Your task to perform on an android device: Clear all items from cart on ebay. Search for "apple airpods" on ebay, select the first entry, add it to the cart, then select checkout. Image 0: 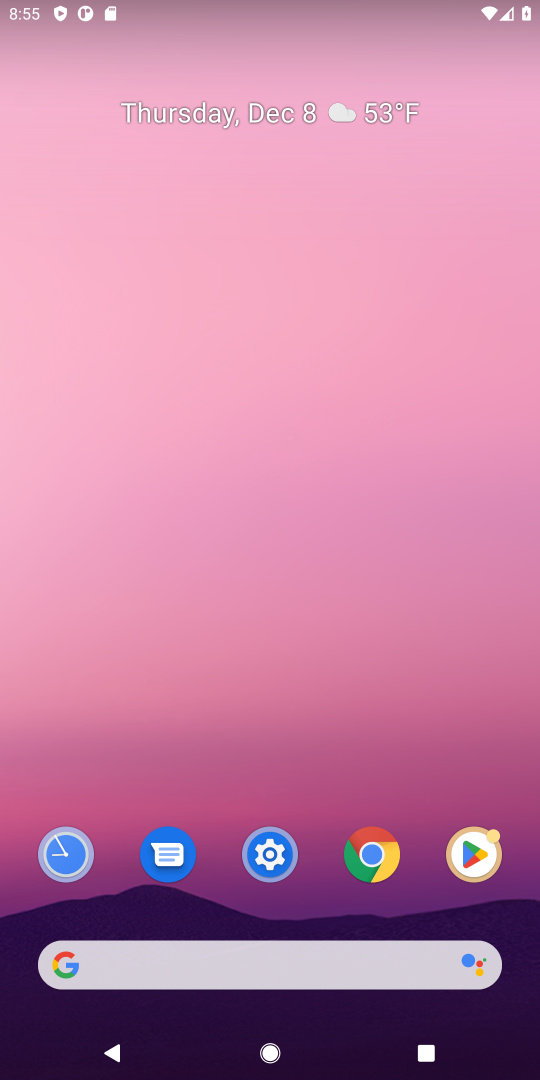
Step 0: press home button
Your task to perform on an android device: Clear all items from cart on ebay. Search for "apple airpods" on ebay, select the first entry, add it to the cart, then select checkout. Image 1: 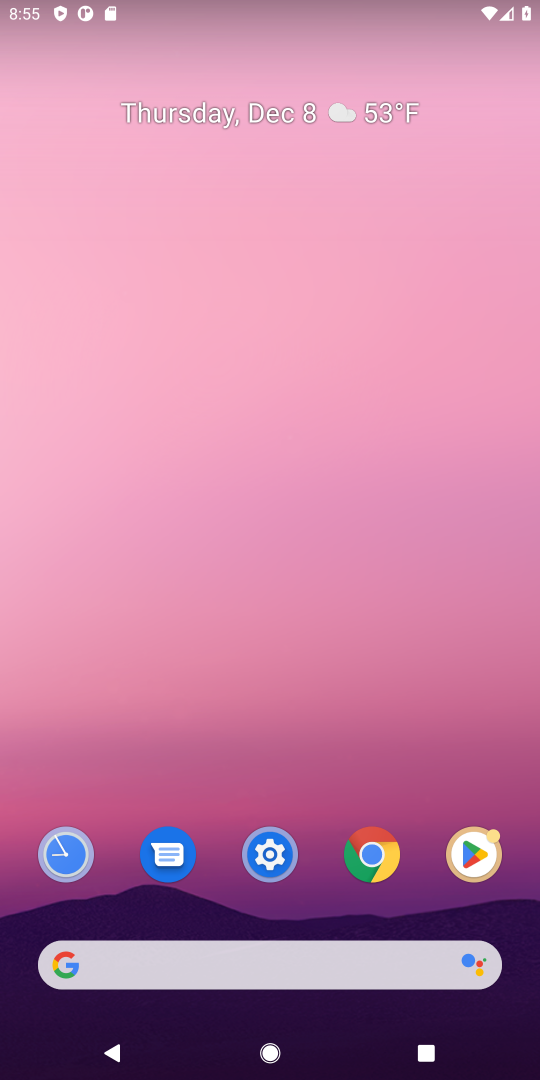
Step 1: click (90, 963)
Your task to perform on an android device: Clear all items from cart on ebay. Search for "apple airpods" on ebay, select the first entry, add it to the cart, then select checkout. Image 2: 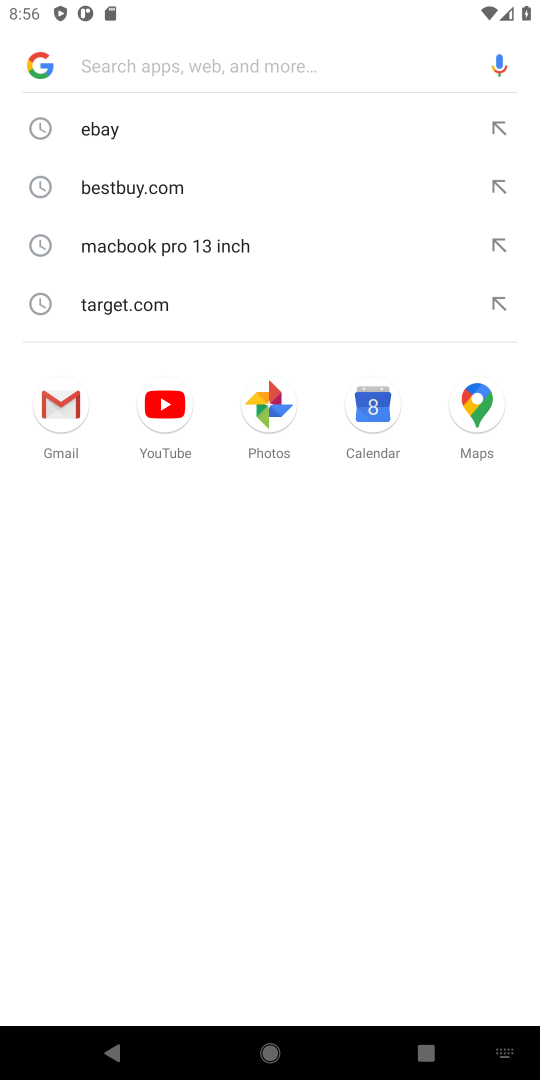
Step 2: type "ebay"
Your task to perform on an android device: Clear all items from cart on ebay. Search for "apple airpods" on ebay, select the first entry, add it to the cart, then select checkout. Image 3: 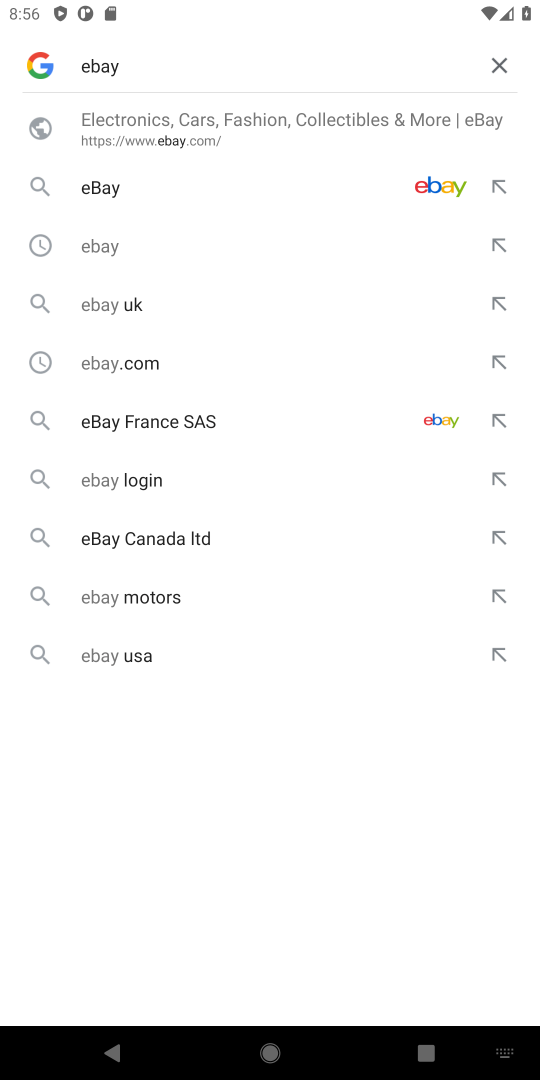
Step 3: press enter
Your task to perform on an android device: Clear all items from cart on ebay. Search for "apple airpods" on ebay, select the first entry, add it to the cart, then select checkout. Image 4: 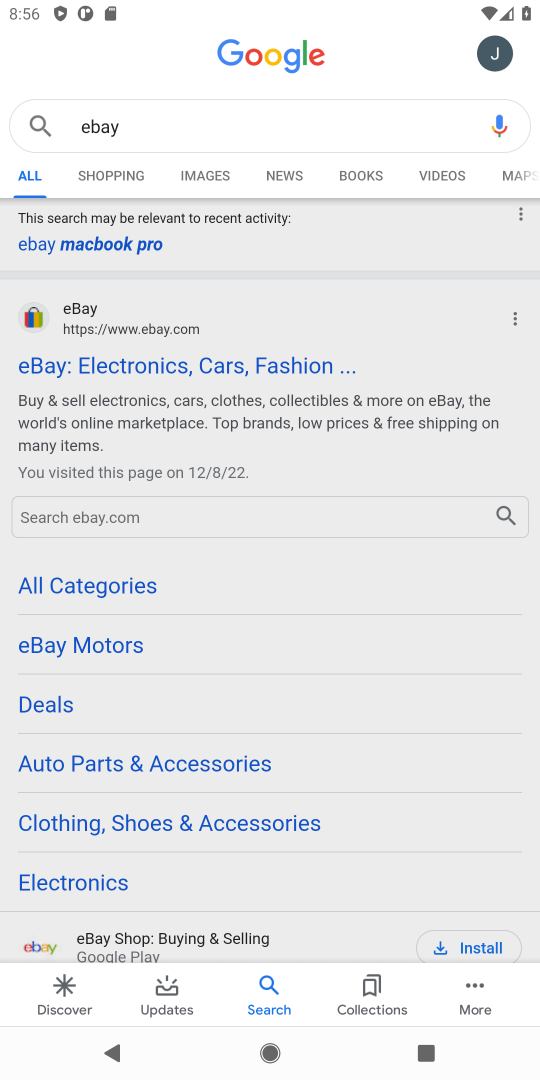
Step 4: click (127, 369)
Your task to perform on an android device: Clear all items from cart on ebay. Search for "apple airpods" on ebay, select the first entry, add it to the cart, then select checkout. Image 5: 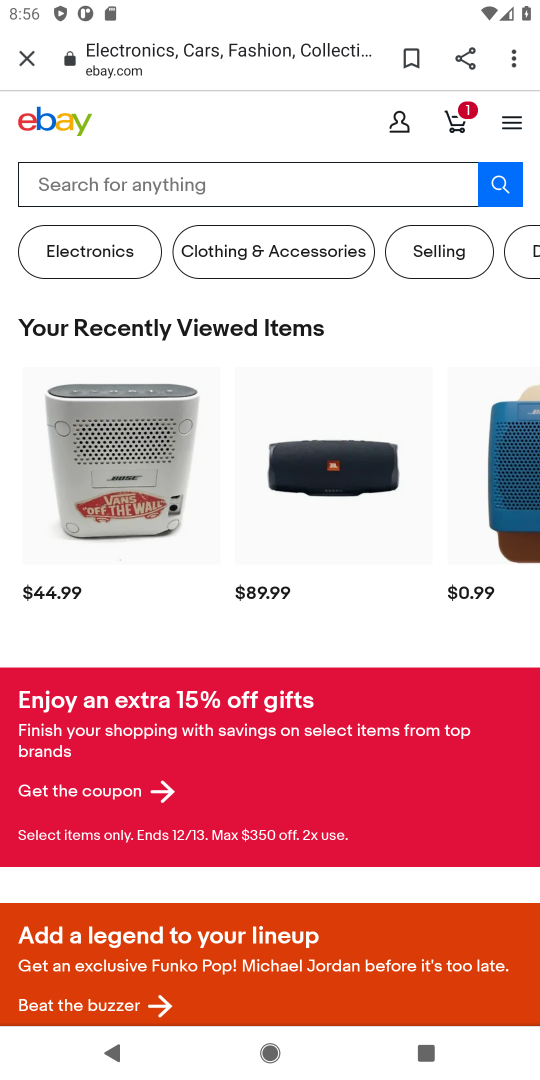
Step 5: click (454, 121)
Your task to perform on an android device: Clear all items from cart on ebay. Search for "apple airpods" on ebay, select the first entry, add it to the cart, then select checkout. Image 6: 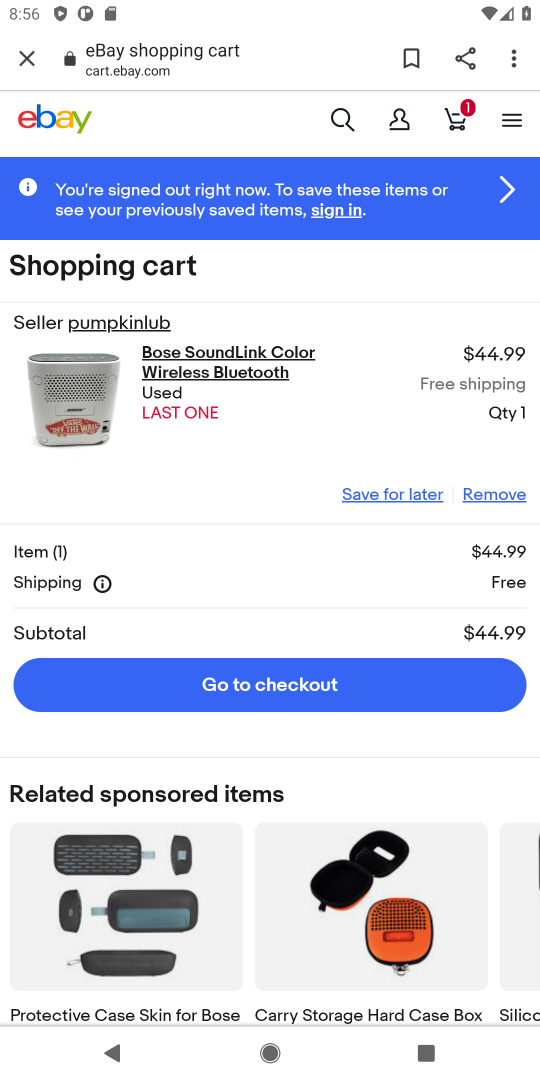
Step 6: click (488, 492)
Your task to perform on an android device: Clear all items from cart on ebay. Search for "apple airpods" on ebay, select the first entry, add it to the cart, then select checkout. Image 7: 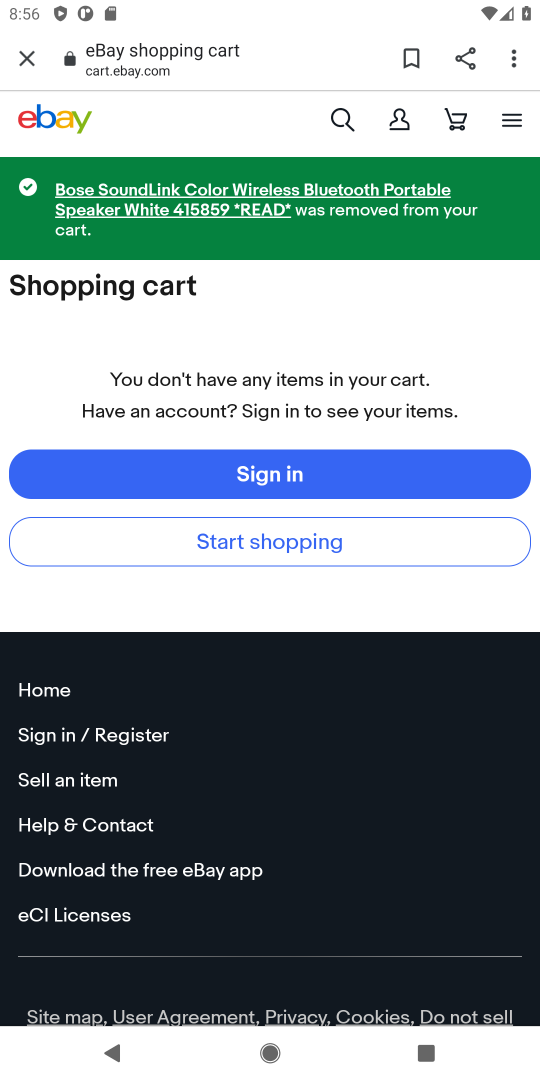
Step 7: click (336, 113)
Your task to perform on an android device: Clear all items from cart on ebay. Search for "apple airpods" on ebay, select the first entry, add it to the cart, then select checkout. Image 8: 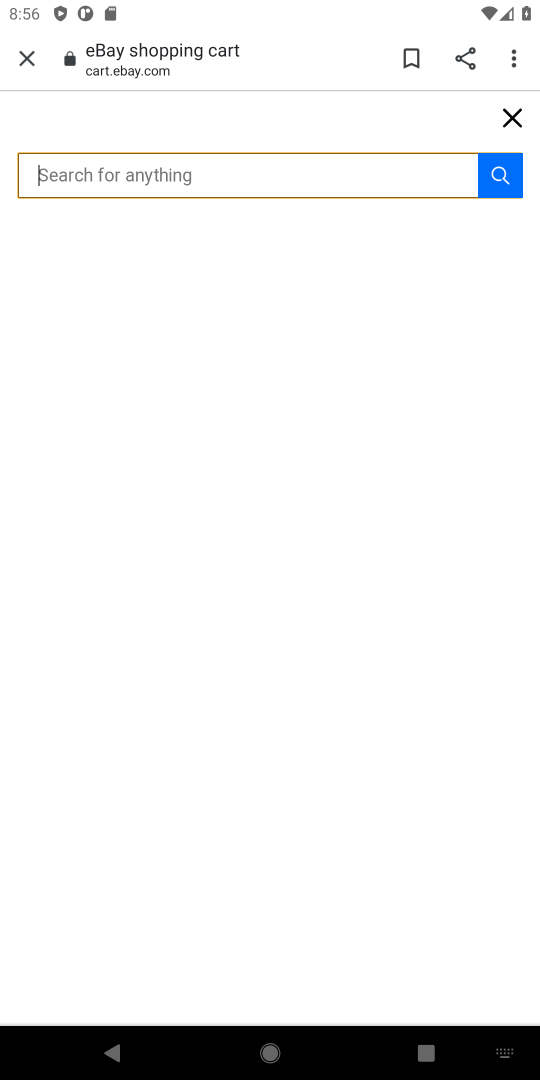
Step 8: type "apple airpods"
Your task to perform on an android device: Clear all items from cart on ebay. Search for "apple airpods" on ebay, select the first entry, add it to the cart, then select checkout. Image 9: 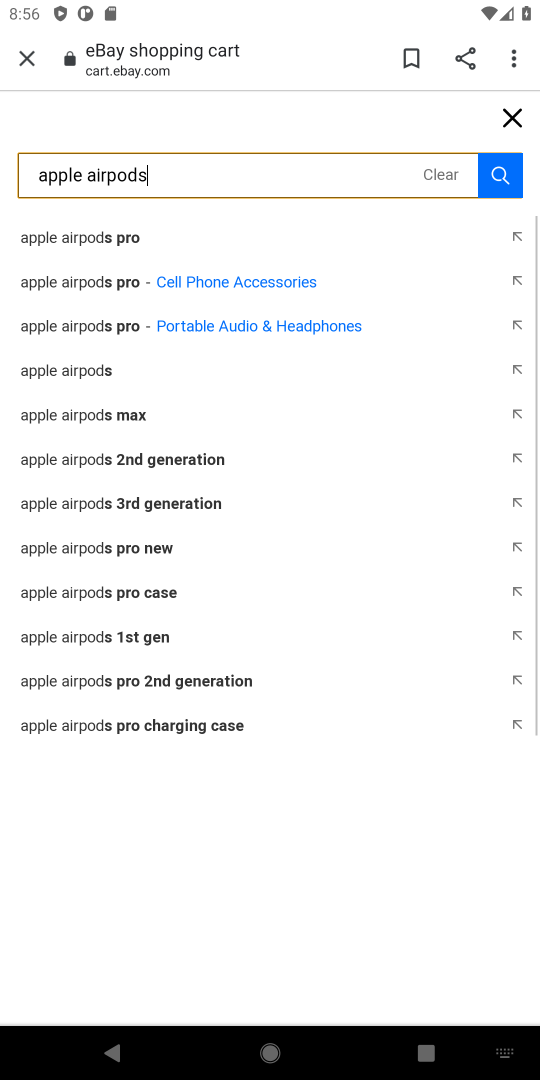
Step 9: press enter
Your task to perform on an android device: Clear all items from cart on ebay. Search for "apple airpods" on ebay, select the first entry, add it to the cart, then select checkout. Image 10: 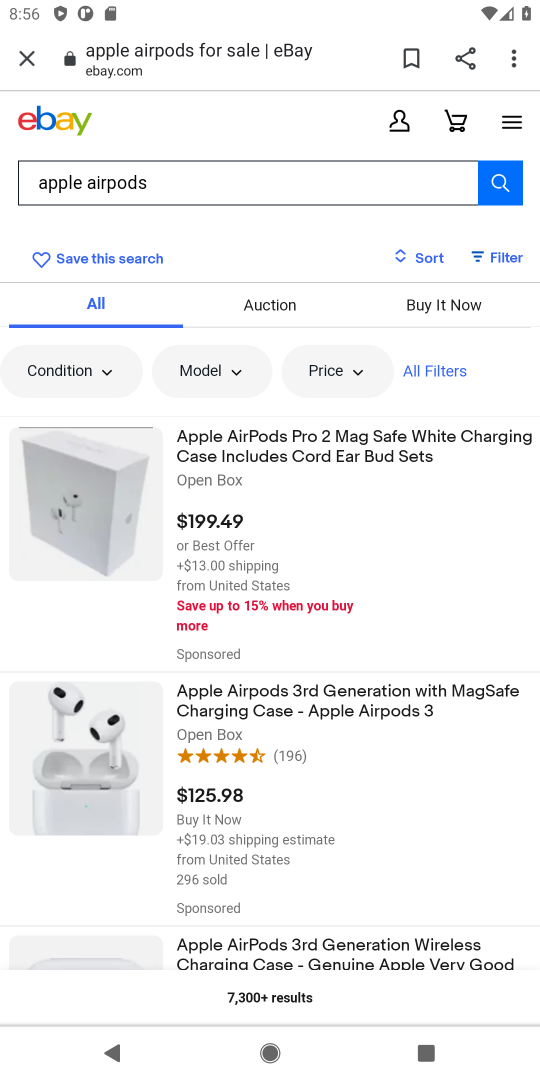
Step 10: click (264, 451)
Your task to perform on an android device: Clear all items from cart on ebay. Search for "apple airpods" on ebay, select the first entry, add it to the cart, then select checkout. Image 11: 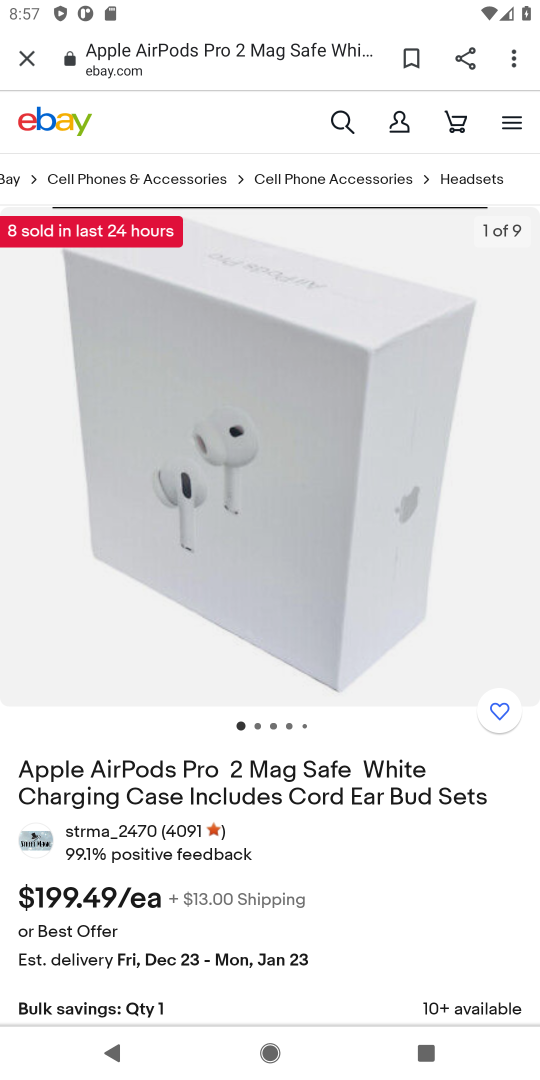
Step 11: drag from (314, 897) to (340, 437)
Your task to perform on an android device: Clear all items from cart on ebay. Search for "apple airpods" on ebay, select the first entry, add it to the cart, then select checkout. Image 12: 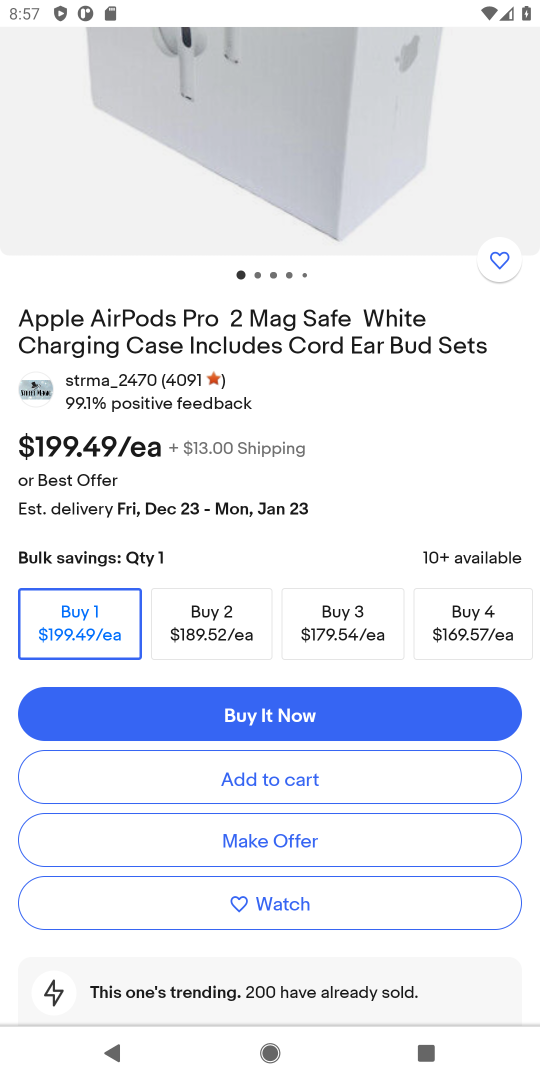
Step 12: click (252, 782)
Your task to perform on an android device: Clear all items from cart on ebay. Search for "apple airpods" on ebay, select the first entry, add it to the cart, then select checkout. Image 13: 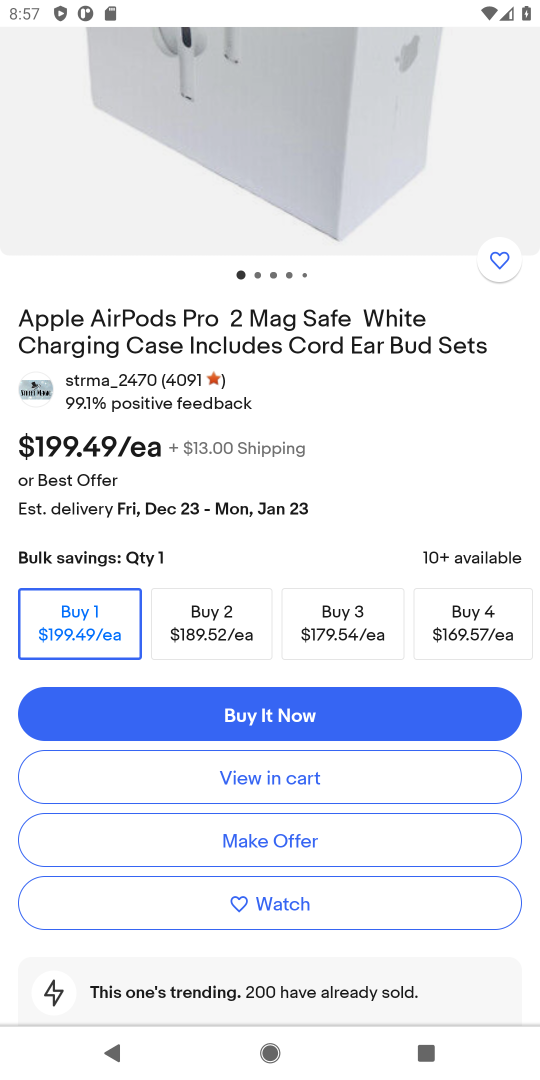
Step 13: click (275, 785)
Your task to perform on an android device: Clear all items from cart on ebay. Search for "apple airpods" on ebay, select the first entry, add it to the cart, then select checkout. Image 14: 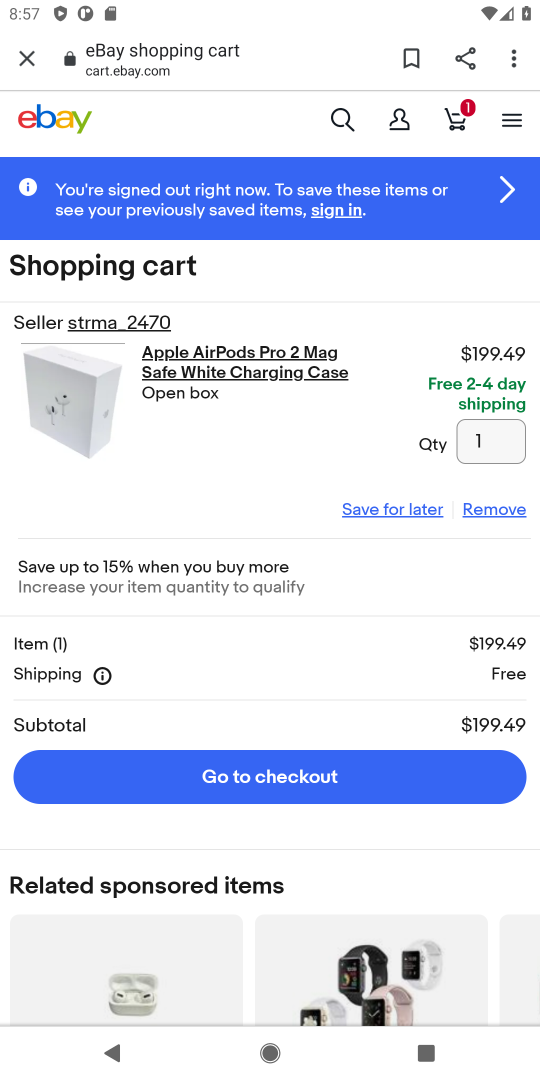
Step 14: click (226, 779)
Your task to perform on an android device: Clear all items from cart on ebay. Search for "apple airpods" on ebay, select the first entry, add it to the cart, then select checkout. Image 15: 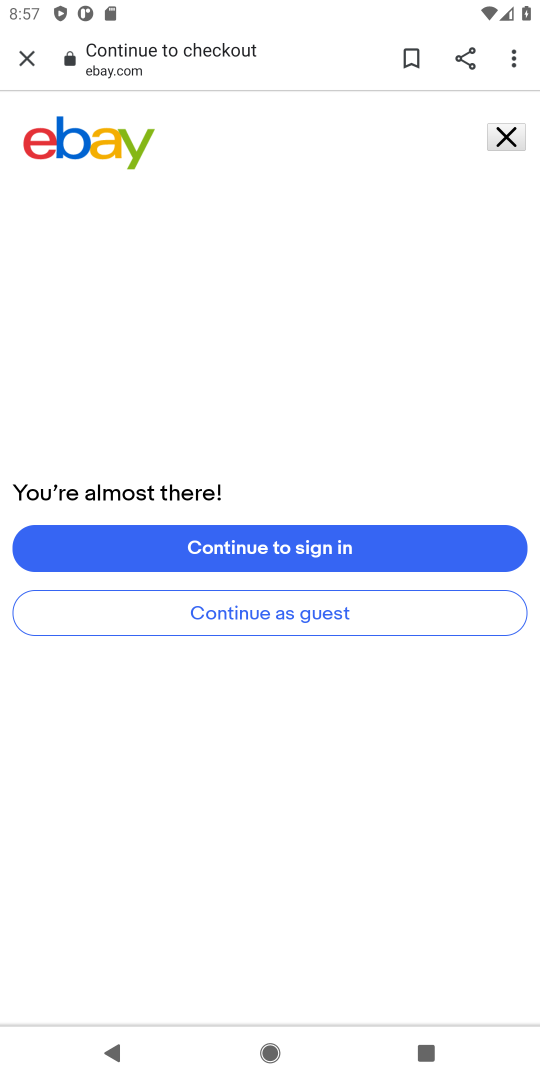
Step 15: task complete